Your task to perform on an android device: Go to Wikipedia Image 0: 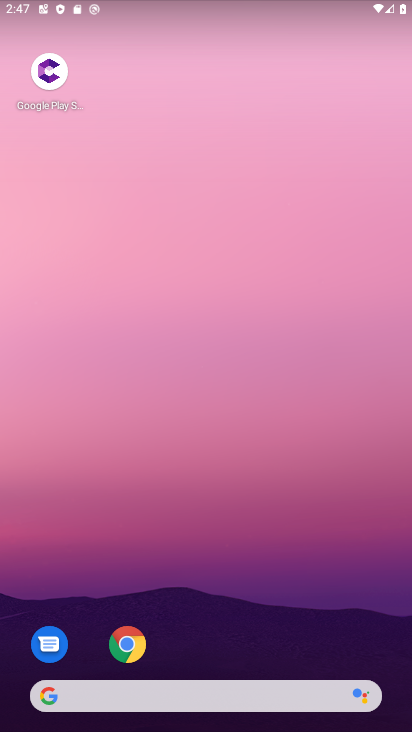
Step 0: drag from (245, 613) to (214, 96)
Your task to perform on an android device: Go to Wikipedia Image 1: 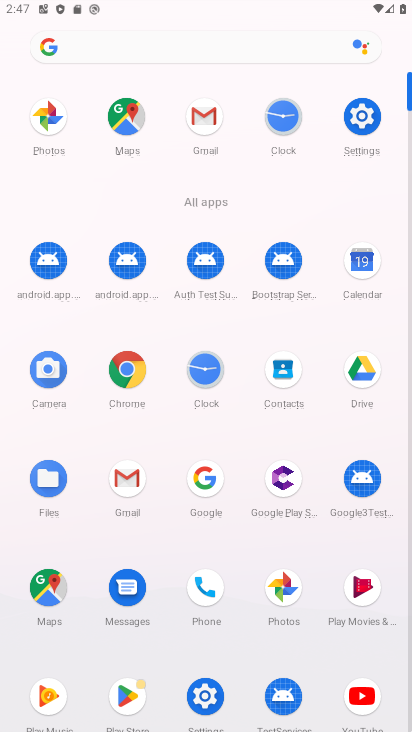
Step 1: drag from (275, 549) to (239, 246)
Your task to perform on an android device: Go to Wikipedia Image 2: 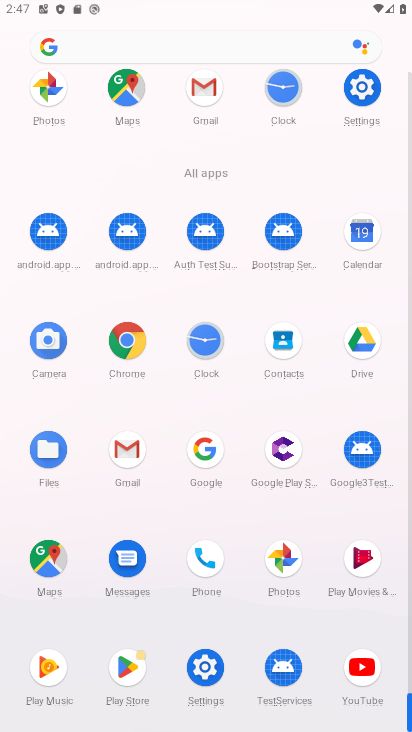
Step 2: click (127, 327)
Your task to perform on an android device: Go to Wikipedia Image 3: 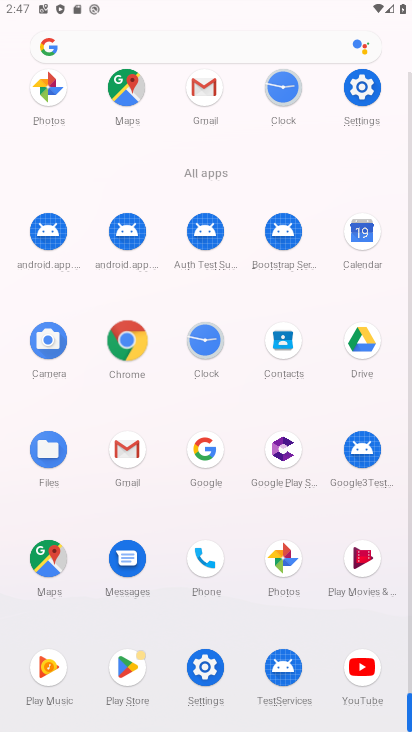
Step 3: click (127, 332)
Your task to perform on an android device: Go to Wikipedia Image 4: 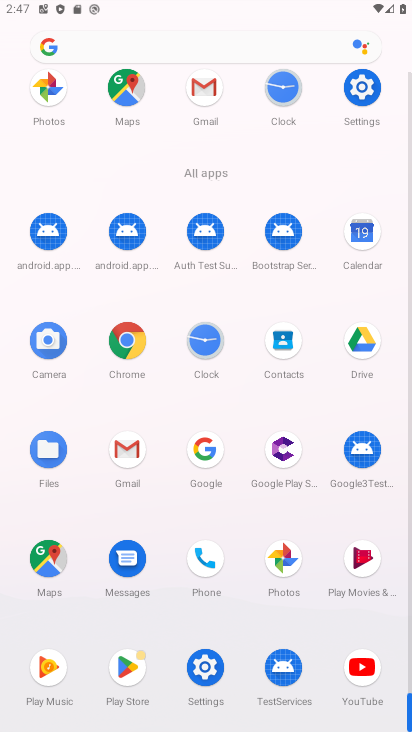
Step 4: click (129, 332)
Your task to perform on an android device: Go to Wikipedia Image 5: 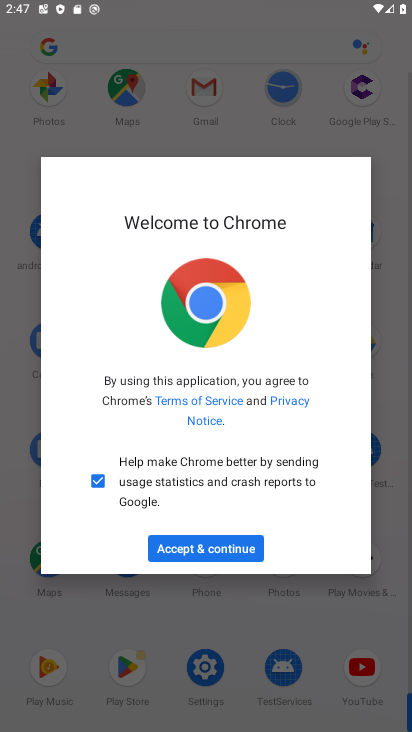
Step 5: click (213, 539)
Your task to perform on an android device: Go to Wikipedia Image 6: 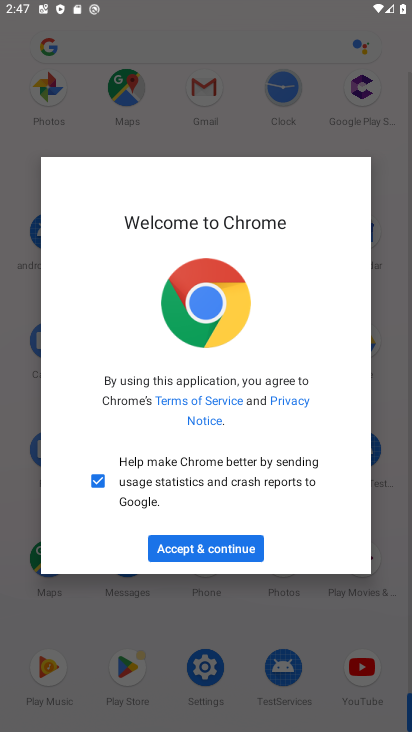
Step 6: click (213, 539)
Your task to perform on an android device: Go to Wikipedia Image 7: 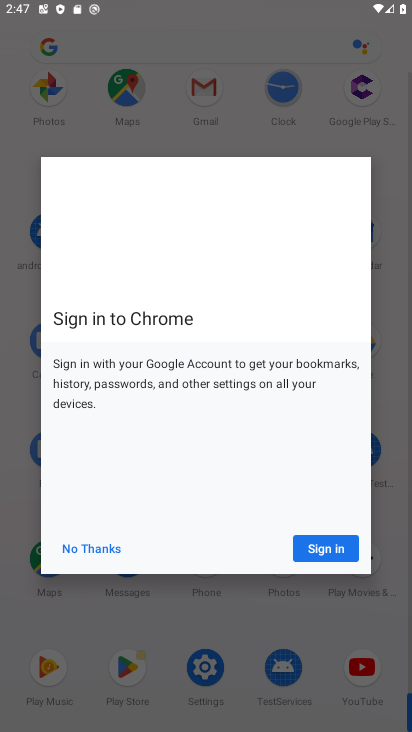
Step 7: click (213, 539)
Your task to perform on an android device: Go to Wikipedia Image 8: 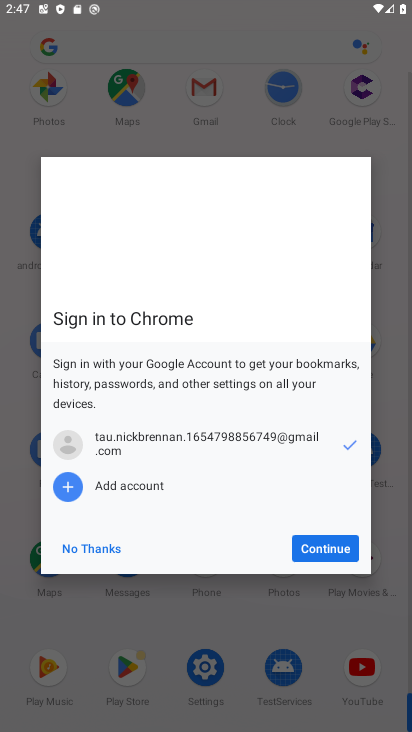
Step 8: click (320, 540)
Your task to perform on an android device: Go to Wikipedia Image 9: 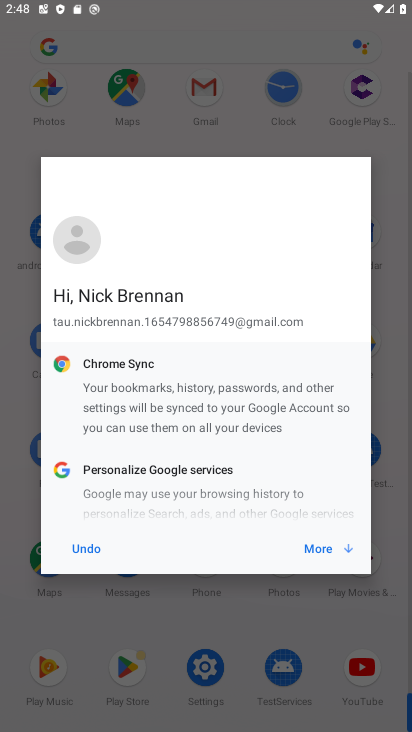
Step 9: click (326, 552)
Your task to perform on an android device: Go to Wikipedia Image 10: 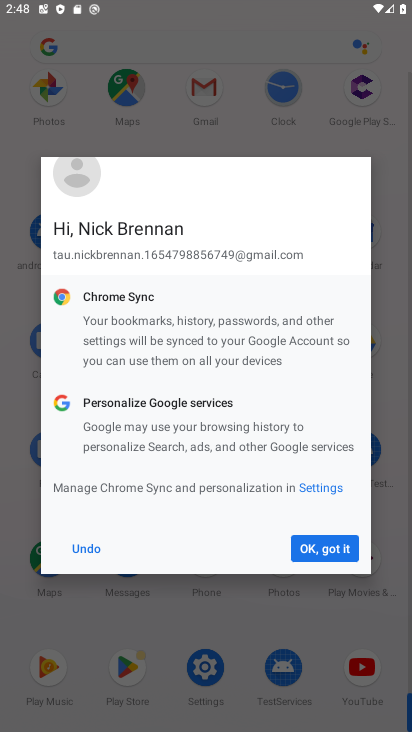
Step 10: click (331, 549)
Your task to perform on an android device: Go to Wikipedia Image 11: 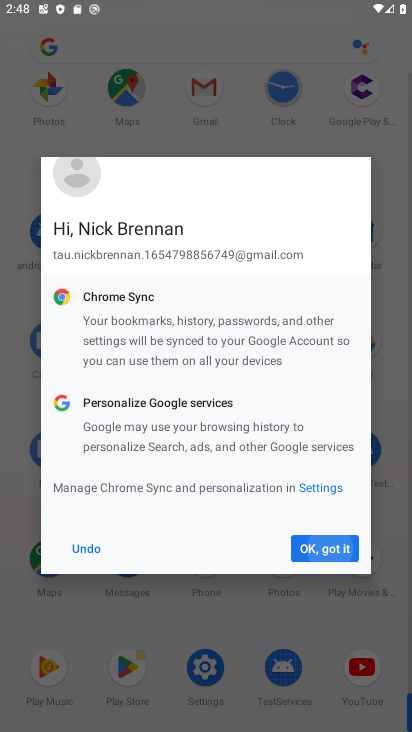
Step 11: click (332, 550)
Your task to perform on an android device: Go to Wikipedia Image 12: 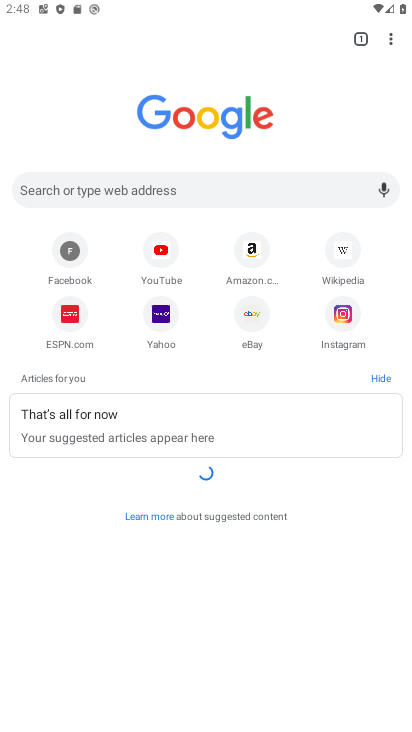
Step 12: click (347, 257)
Your task to perform on an android device: Go to Wikipedia Image 13: 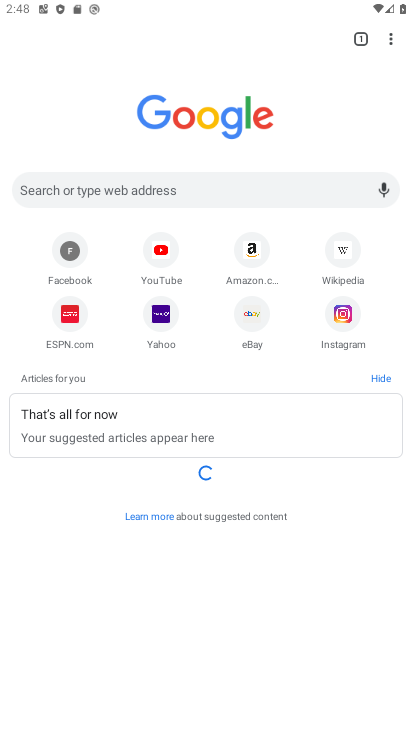
Step 13: click (347, 257)
Your task to perform on an android device: Go to Wikipedia Image 14: 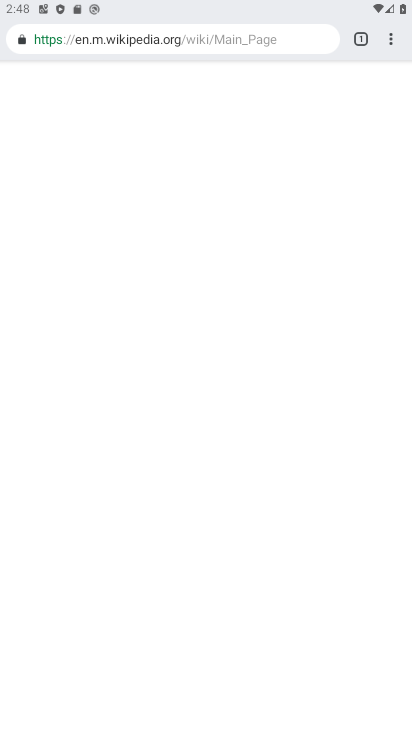
Step 14: task complete